Your task to perform on an android device: Go to privacy settings Image 0: 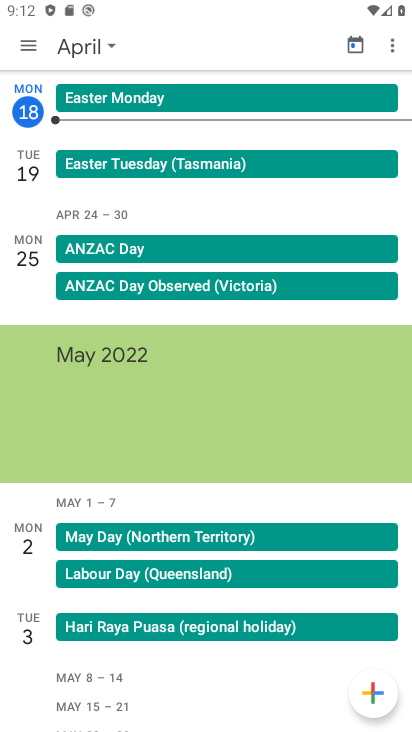
Step 0: press home button
Your task to perform on an android device: Go to privacy settings Image 1: 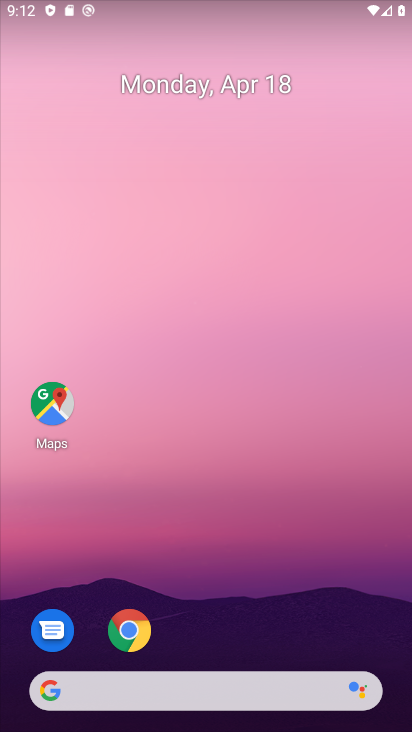
Step 1: drag from (224, 566) to (270, 125)
Your task to perform on an android device: Go to privacy settings Image 2: 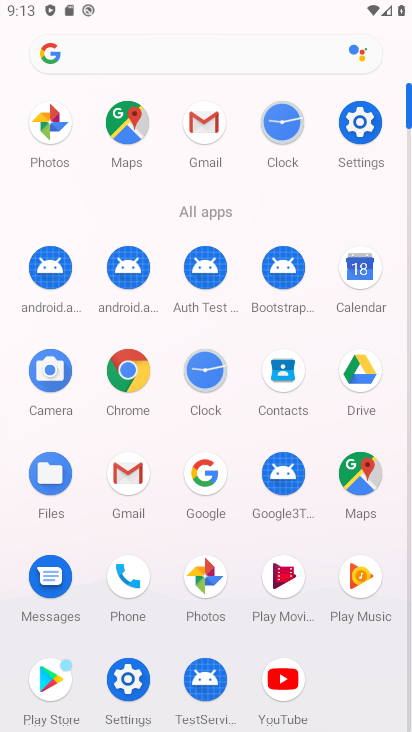
Step 2: click (375, 118)
Your task to perform on an android device: Go to privacy settings Image 3: 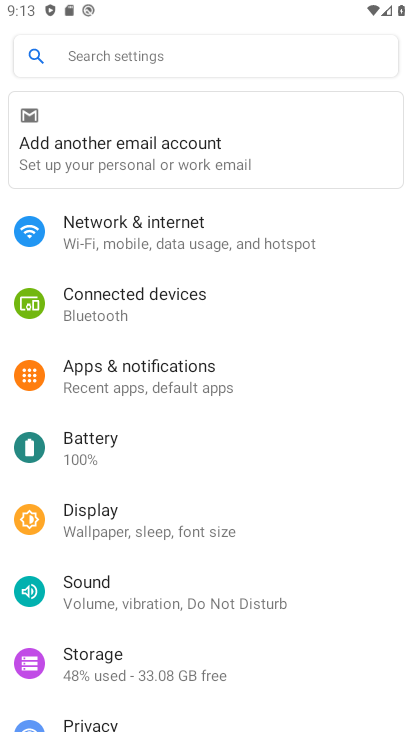
Step 3: click (96, 722)
Your task to perform on an android device: Go to privacy settings Image 4: 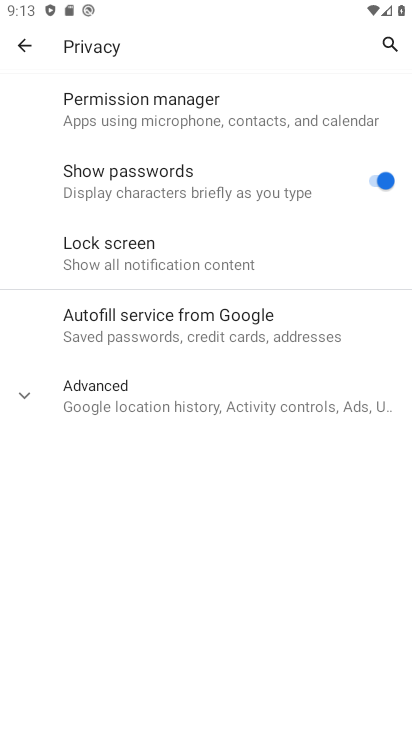
Step 4: task complete